Your task to perform on an android device: Add "logitech g pro" to the cart on ebay.com, then select checkout. Image 0: 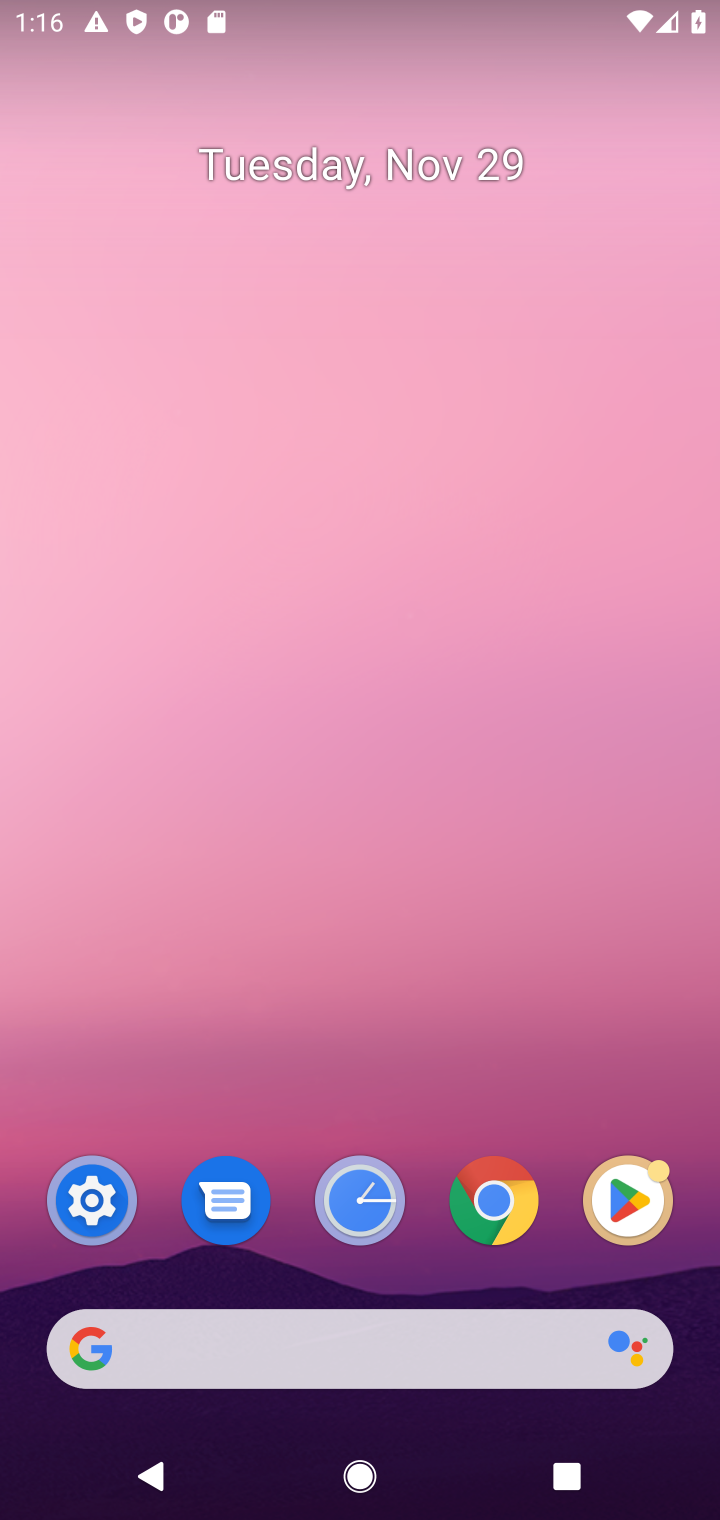
Step 0: click (236, 1346)
Your task to perform on an android device: Add "logitech g pro" to the cart on ebay.com, then select checkout. Image 1: 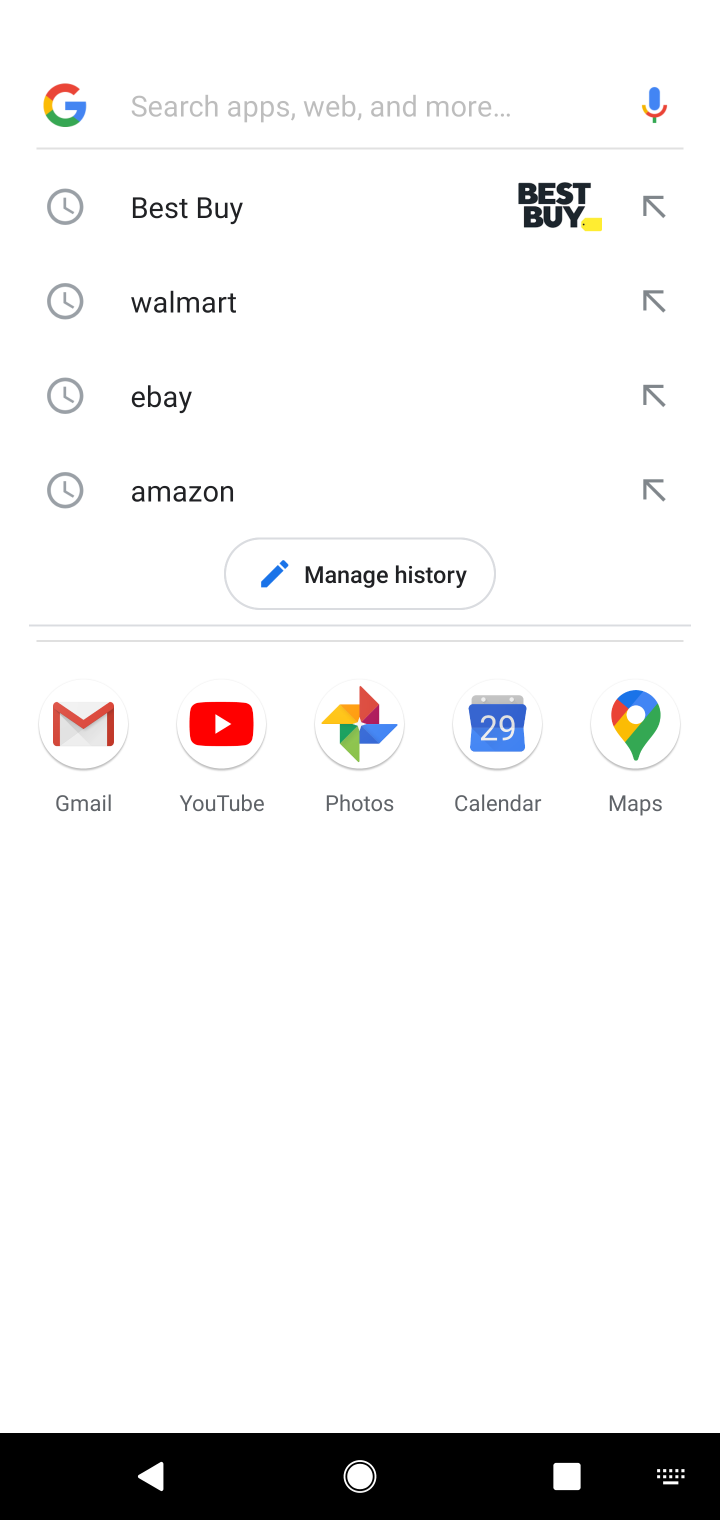
Step 1: click (223, 394)
Your task to perform on an android device: Add "logitech g pro" to the cart on ebay.com, then select checkout. Image 2: 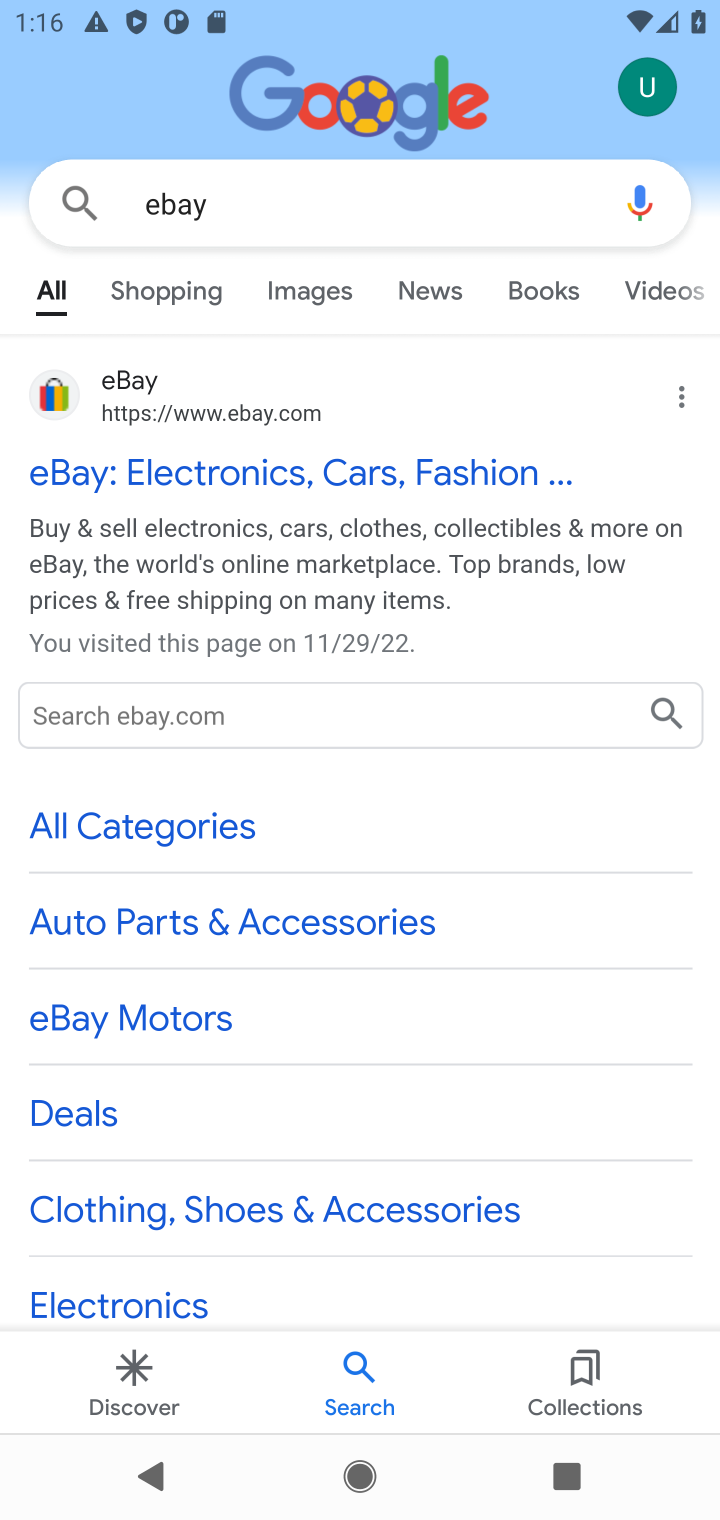
Step 2: click (218, 438)
Your task to perform on an android device: Add "logitech g pro" to the cart on ebay.com, then select checkout. Image 3: 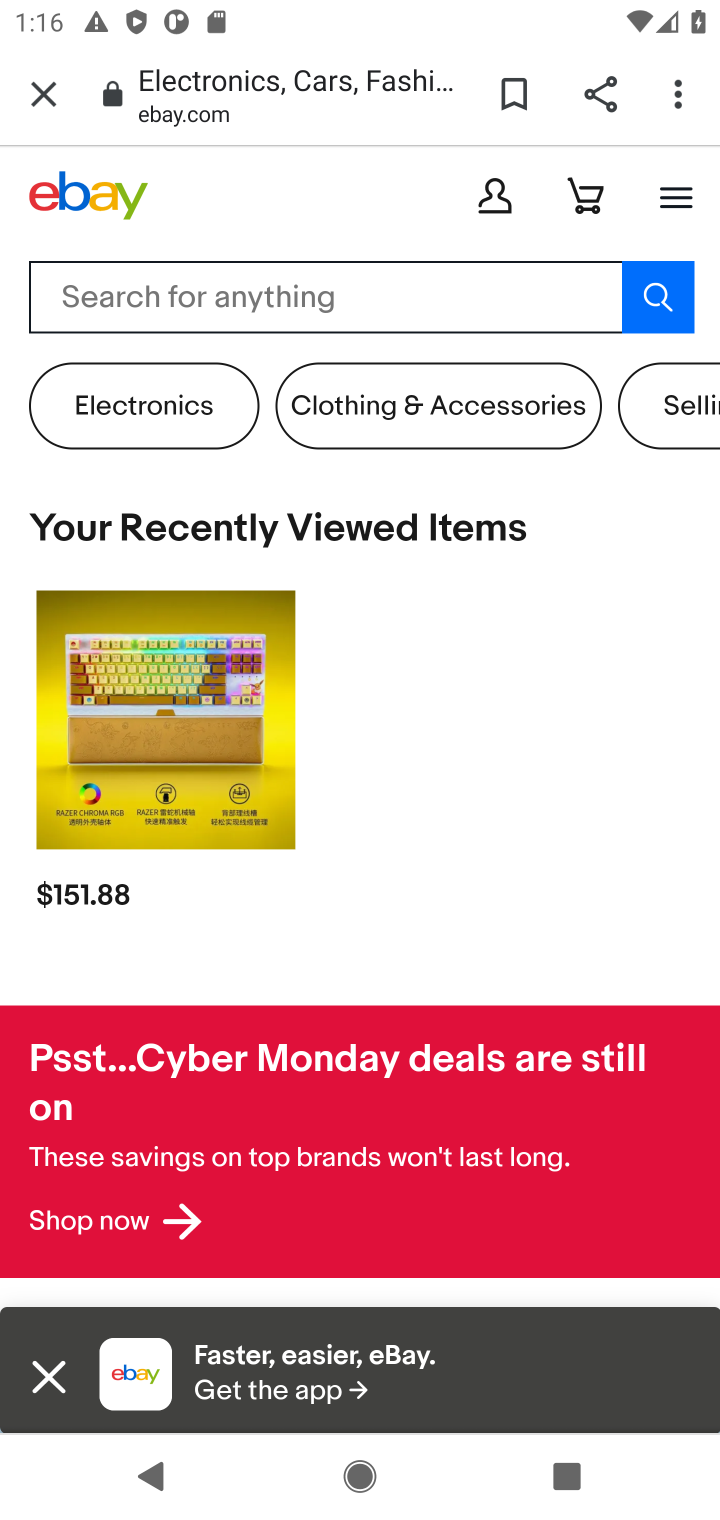
Step 3: click (312, 317)
Your task to perform on an android device: Add "logitech g pro" to the cart on ebay.com, then select checkout. Image 4: 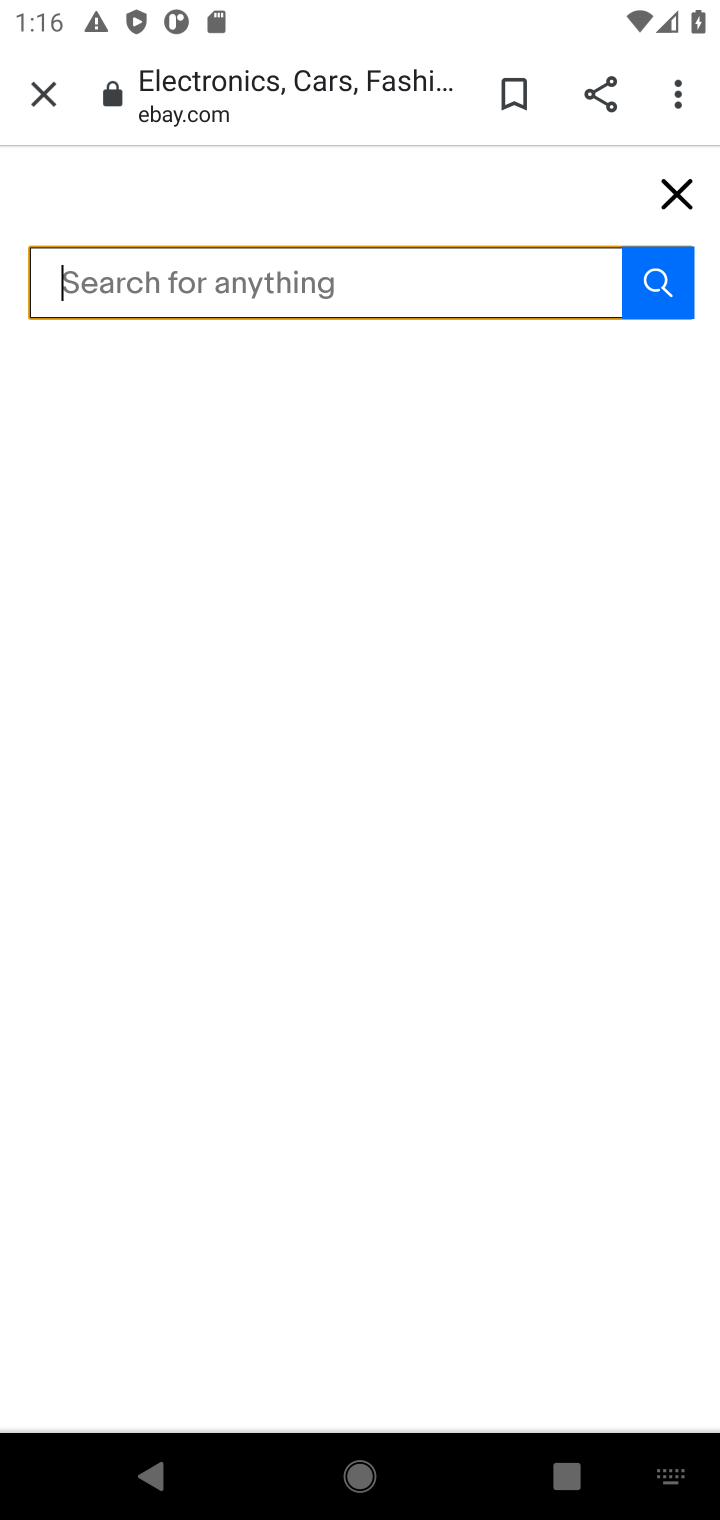
Step 4: type "logitech g pro"
Your task to perform on an android device: Add "logitech g pro" to the cart on ebay.com, then select checkout. Image 5: 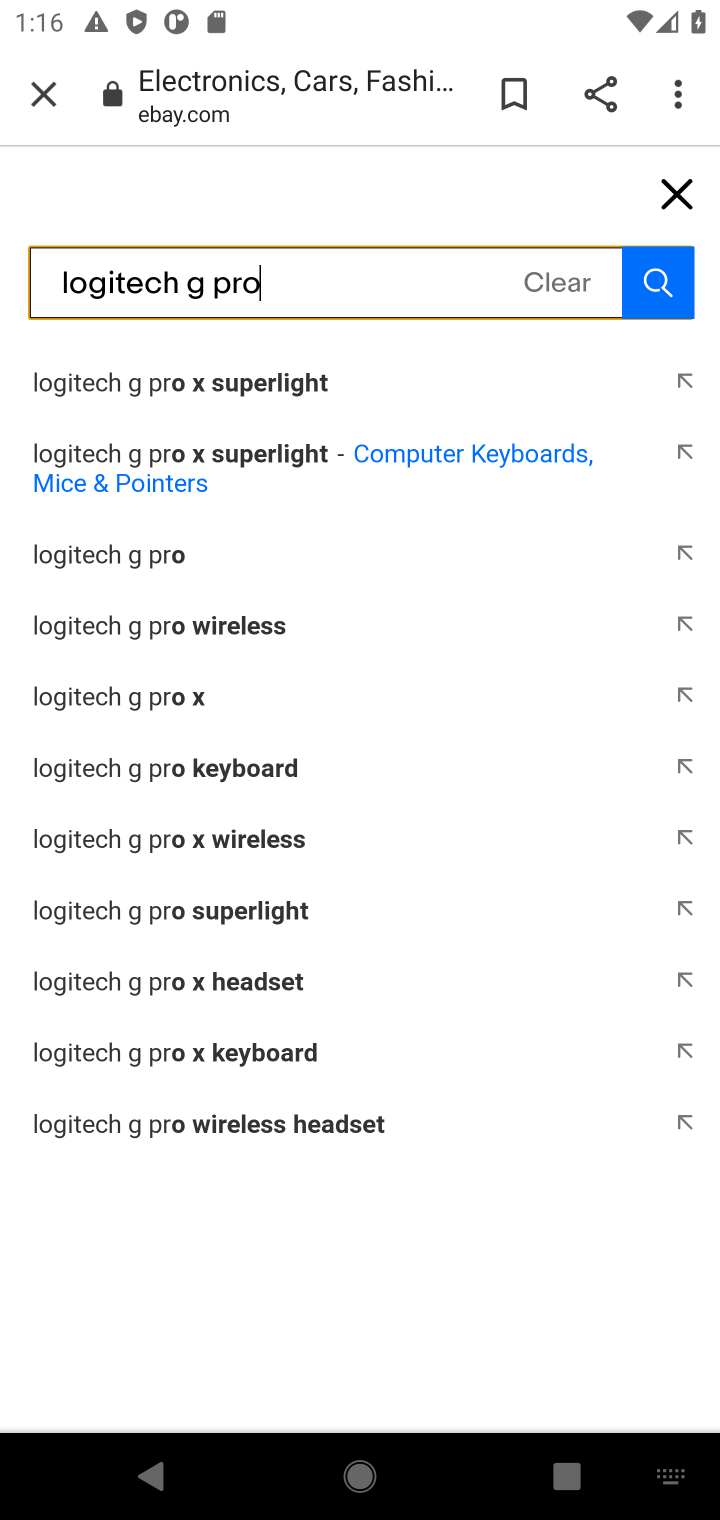
Step 5: click (648, 292)
Your task to perform on an android device: Add "logitech g pro" to the cart on ebay.com, then select checkout. Image 6: 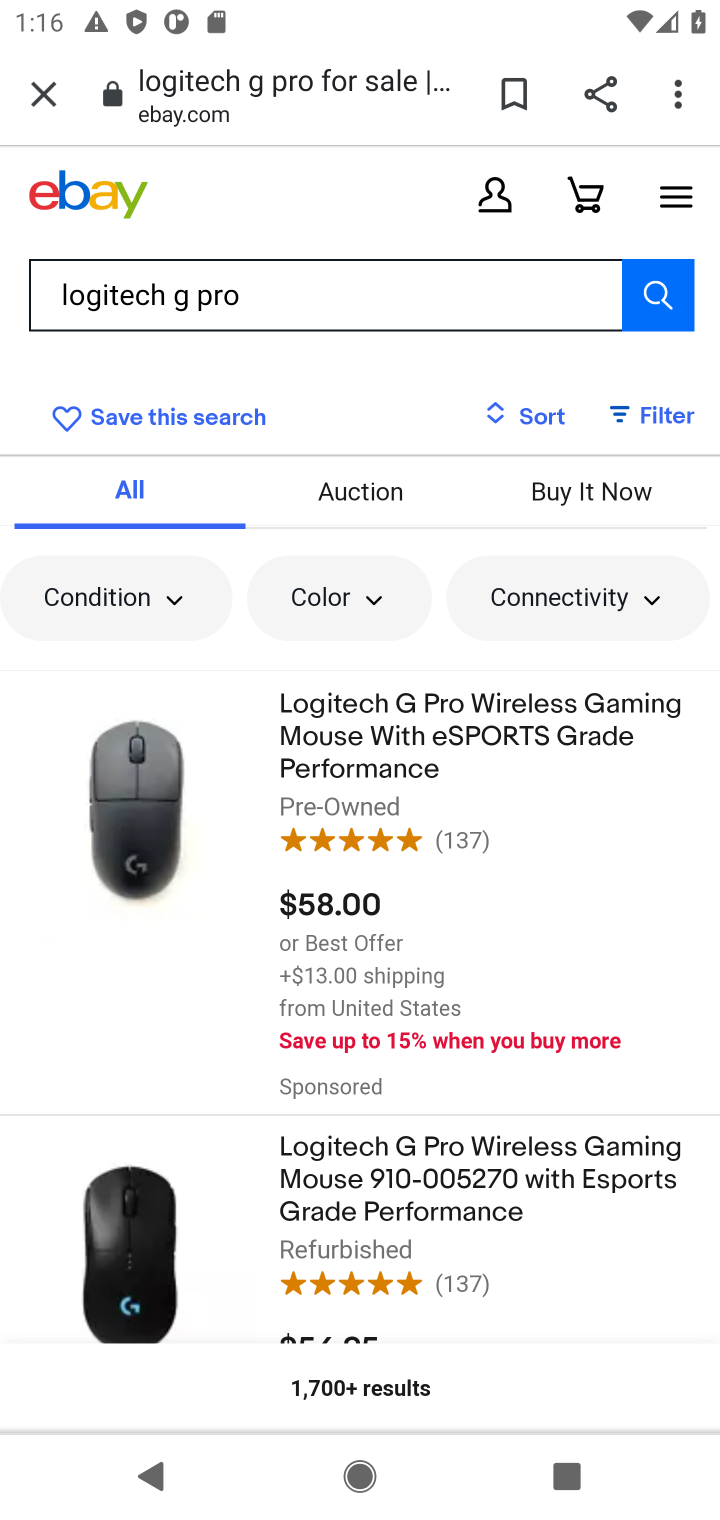
Step 6: click (414, 711)
Your task to perform on an android device: Add "logitech g pro" to the cart on ebay.com, then select checkout. Image 7: 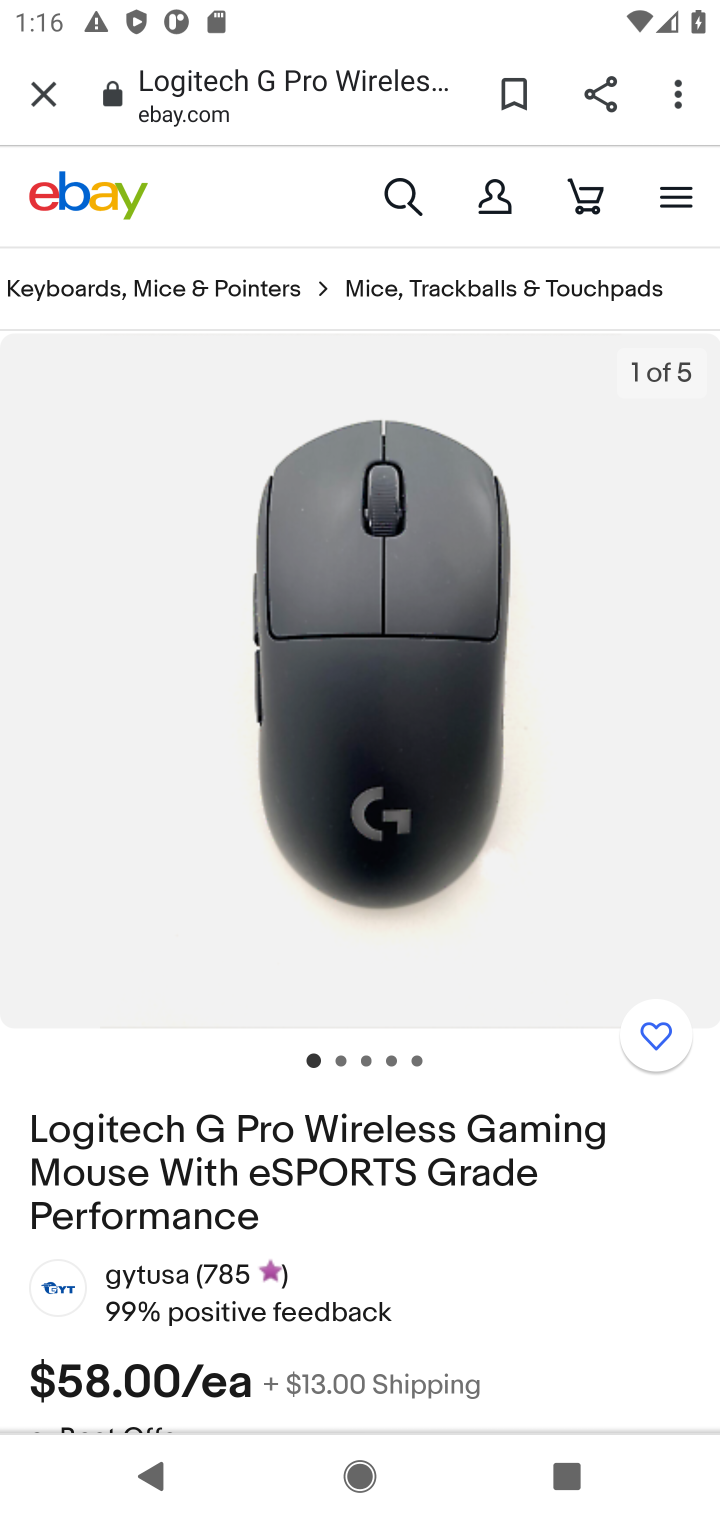
Step 7: drag from (480, 1243) to (487, 618)
Your task to perform on an android device: Add "logitech g pro" to the cart on ebay.com, then select checkout. Image 8: 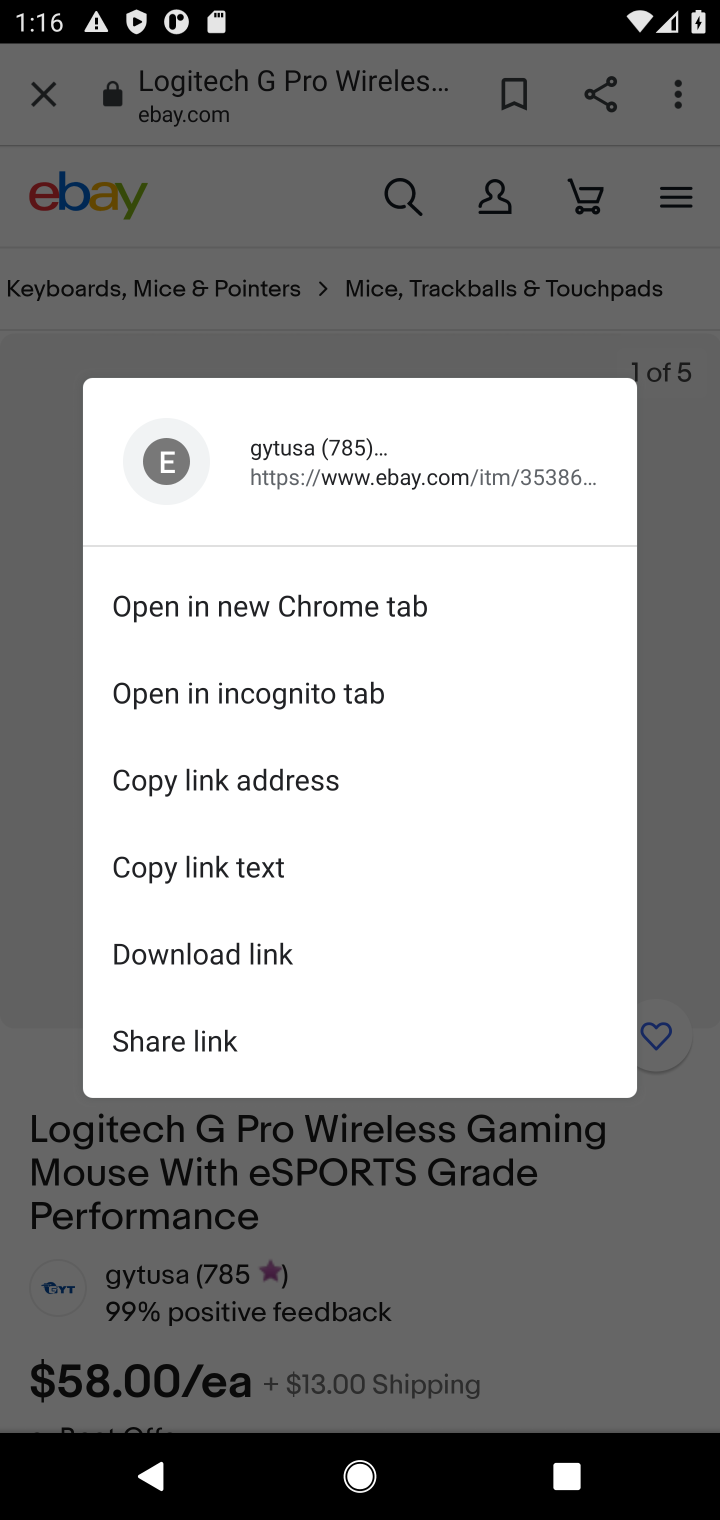
Step 8: click (408, 294)
Your task to perform on an android device: Add "logitech g pro" to the cart on ebay.com, then select checkout. Image 9: 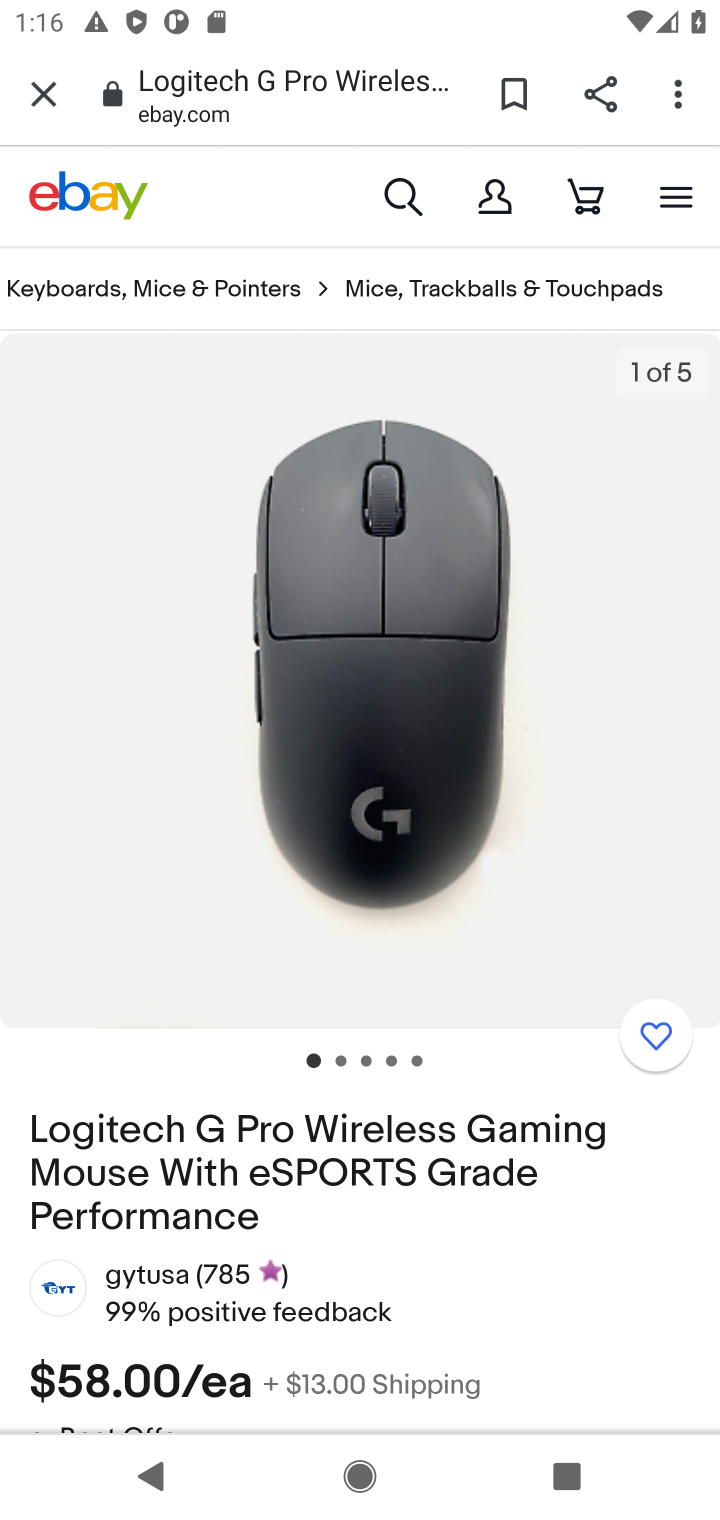
Step 9: drag from (494, 1174) to (493, 554)
Your task to perform on an android device: Add "logitech g pro" to the cart on ebay.com, then select checkout. Image 10: 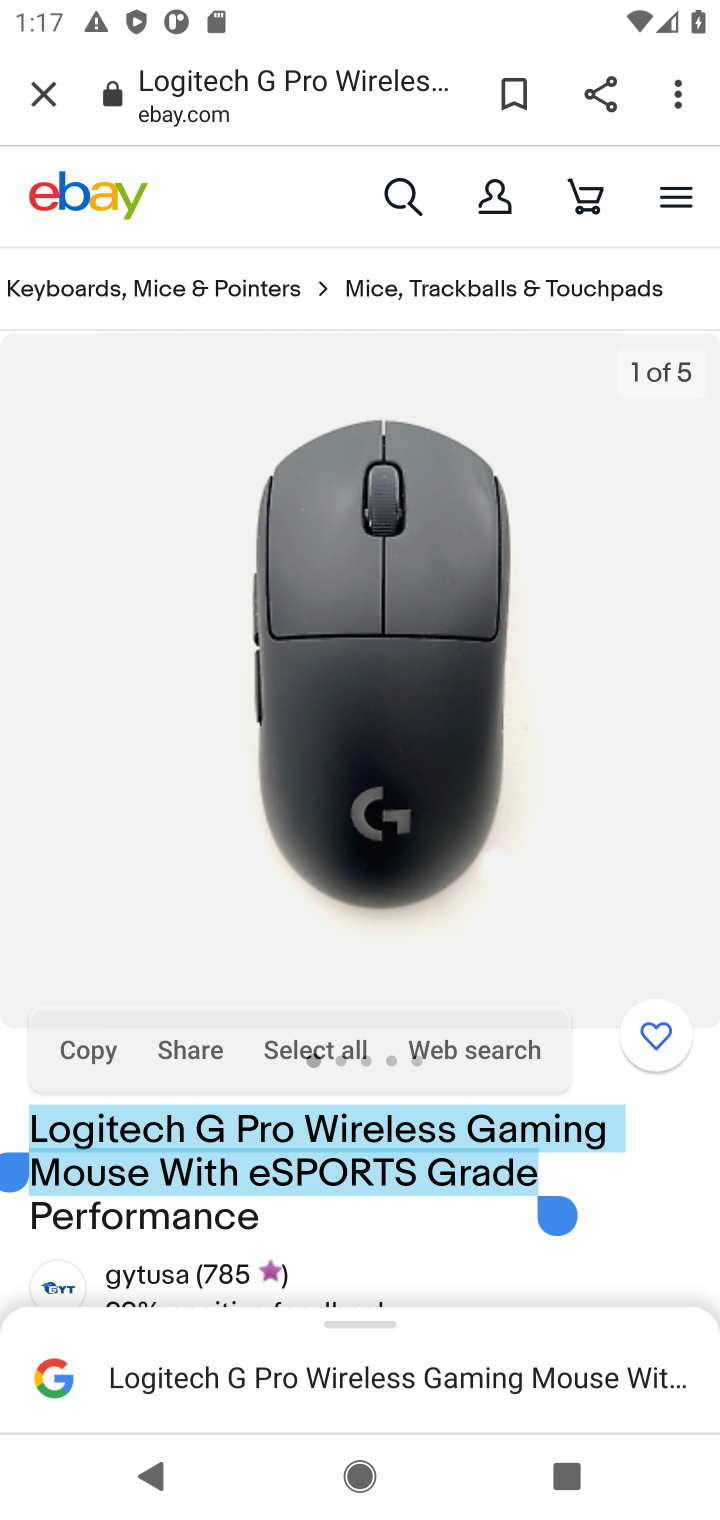
Step 10: click (588, 1203)
Your task to perform on an android device: Add "logitech g pro" to the cart on ebay.com, then select checkout. Image 11: 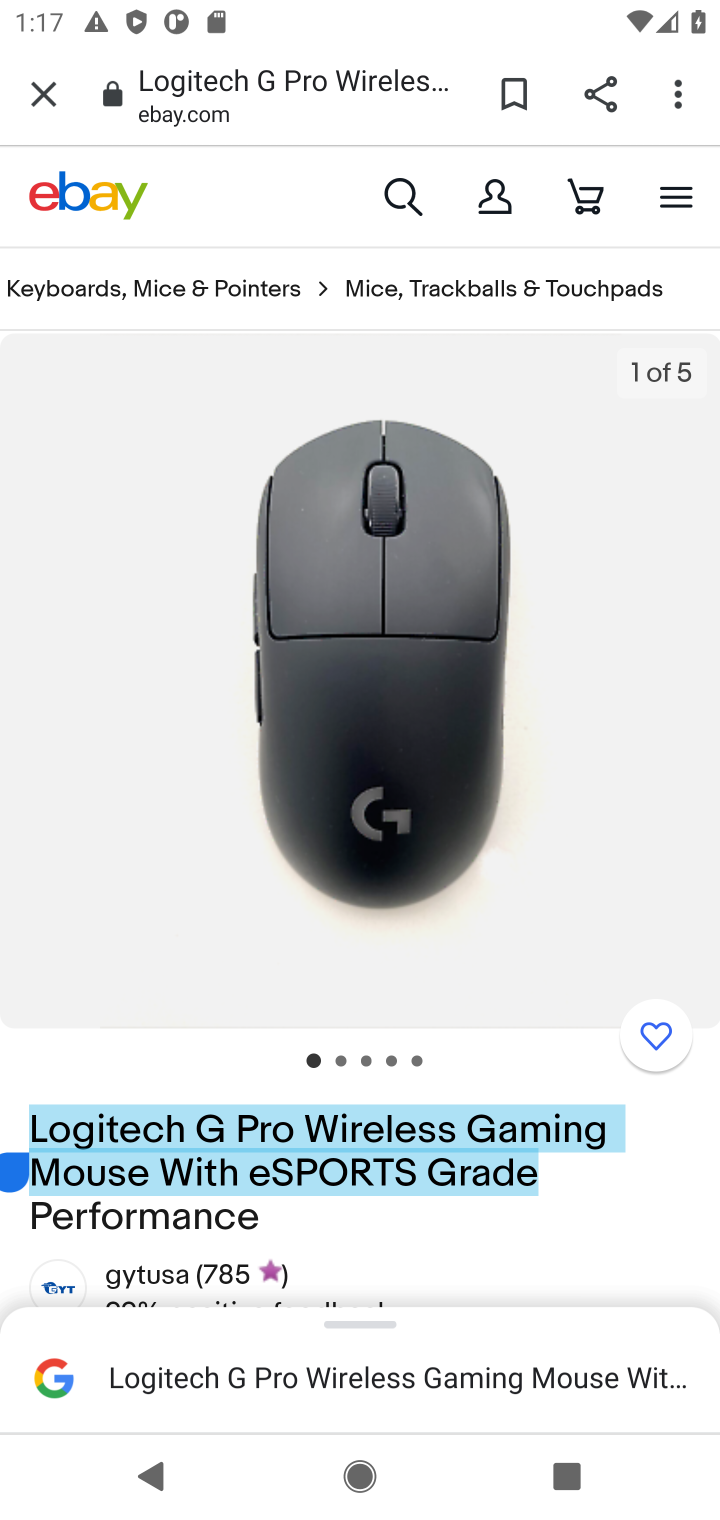
Step 11: click (588, 1203)
Your task to perform on an android device: Add "logitech g pro" to the cart on ebay.com, then select checkout. Image 12: 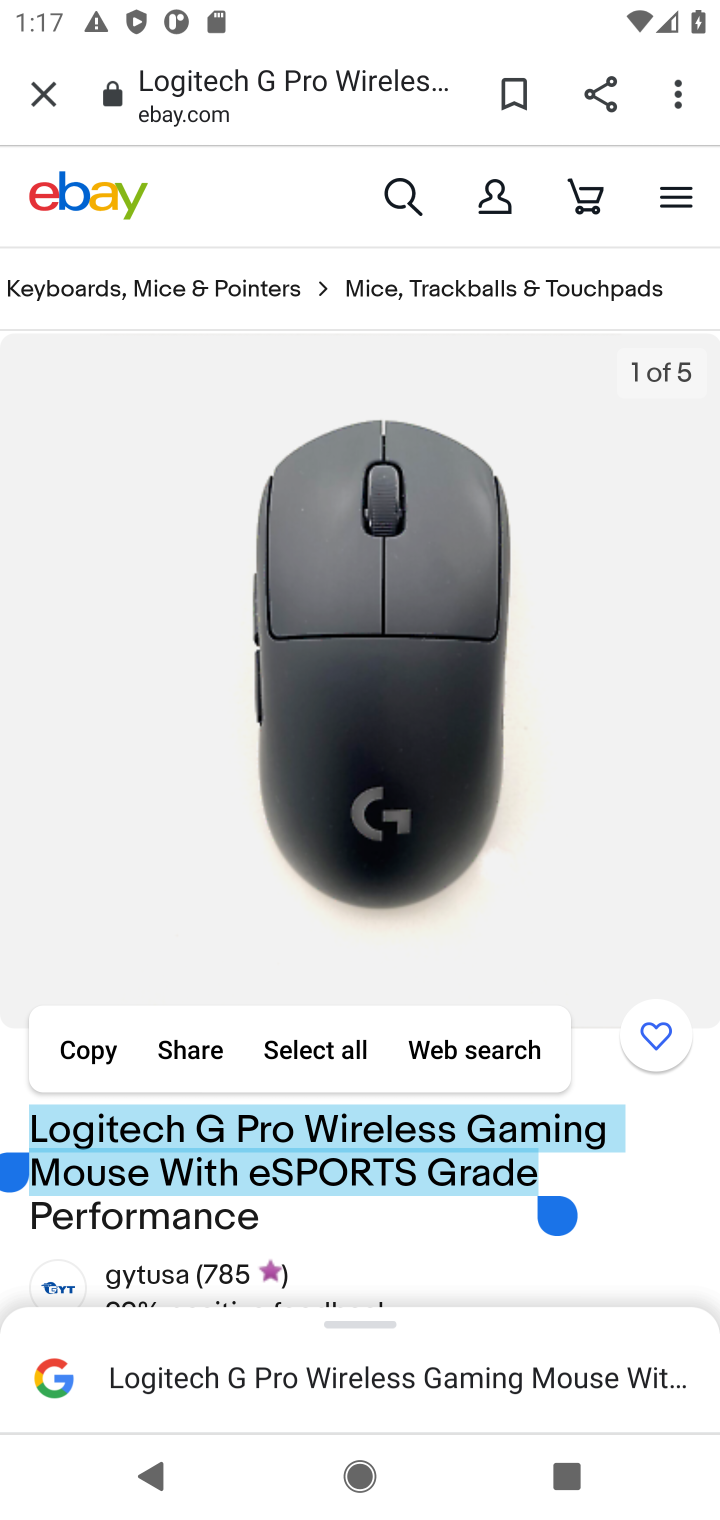
Step 12: task complete